Your task to perform on an android device: toggle javascript in the chrome app Image 0: 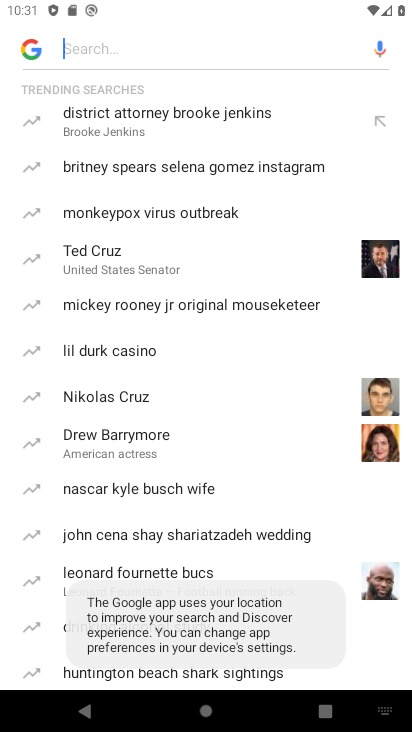
Step 0: press back button
Your task to perform on an android device: toggle javascript in the chrome app Image 1: 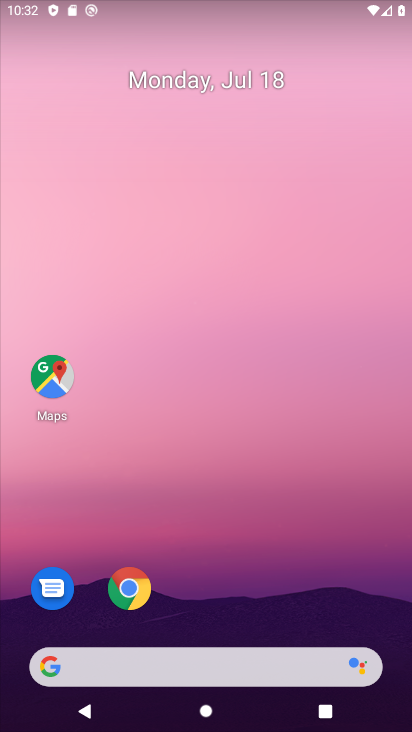
Step 1: click (127, 602)
Your task to perform on an android device: toggle javascript in the chrome app Image 2: 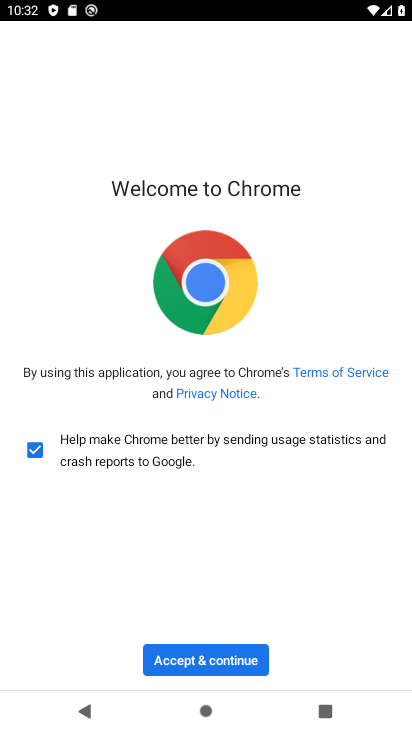
Step 2: click (232, 655)
Your task to perform on an android device: toggle javascript in the chrome app Image 3: 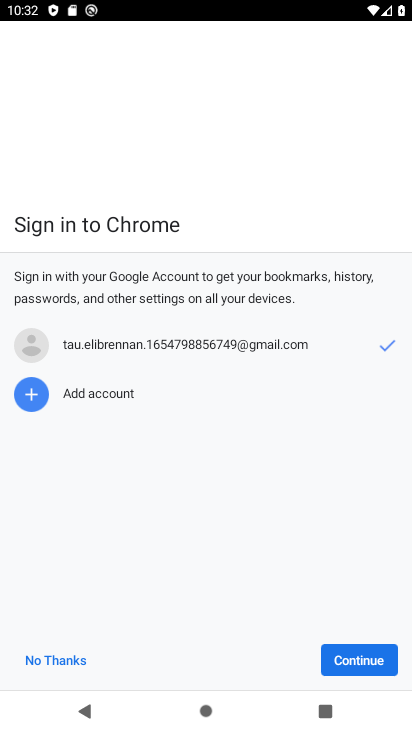
Step 3: click (345, 654)
Your task to perform on an android device: toggle javascript in the chrome app Image 4: 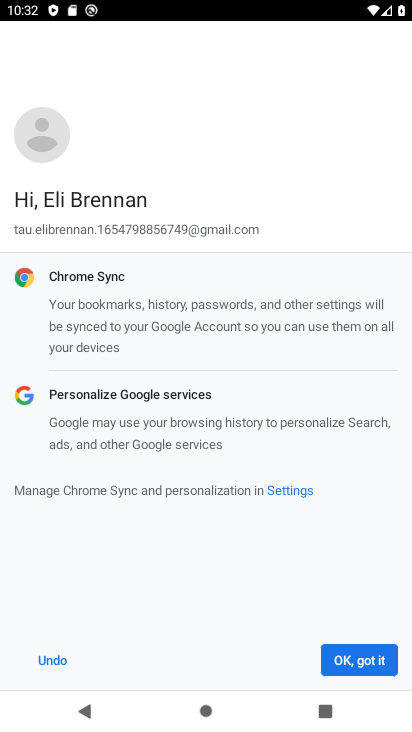
Step 4: click (344, 650)
Your task to perform on an android device: toggle javascript in the chrome app Image 5: 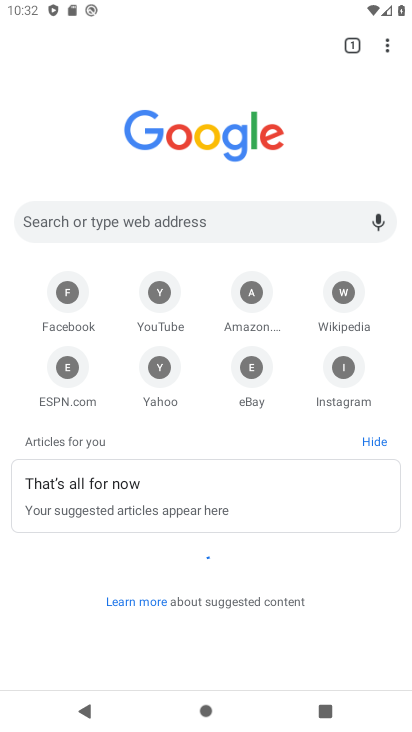
Step 5: click (386, 42)
Your task to perform on an android device: toggle javascript in the chrome app Image 6: 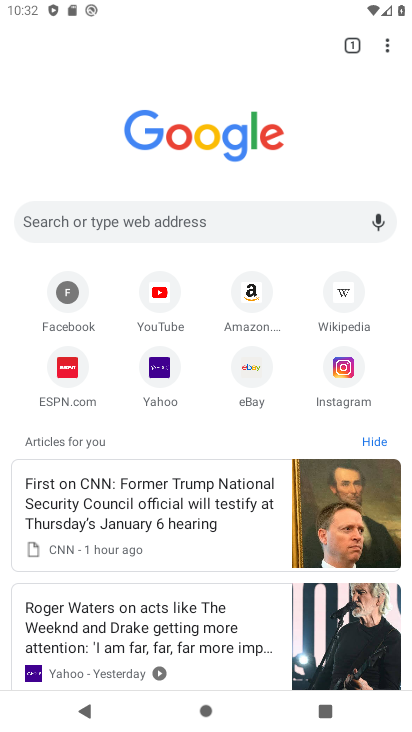
Step 6: drag from (387, 35) to (252, 380)
Your task to perform on an android device: toggle javascript in the chrome app Image 7: 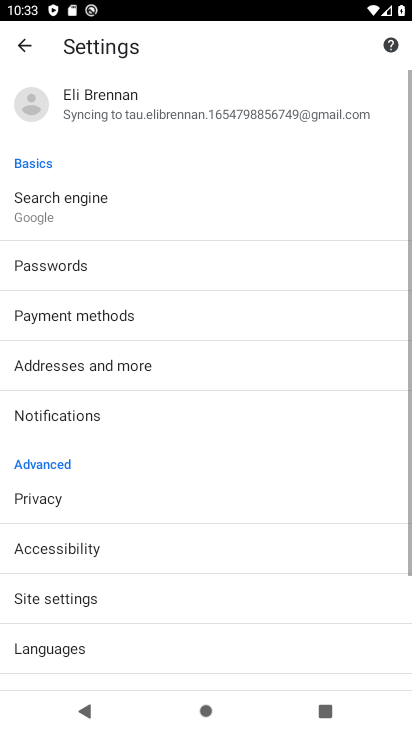
Step 7: drag from (169, 612) to (120, 283)
Your task to perform on an android device: toggle javascript in the chrome app Image 8: 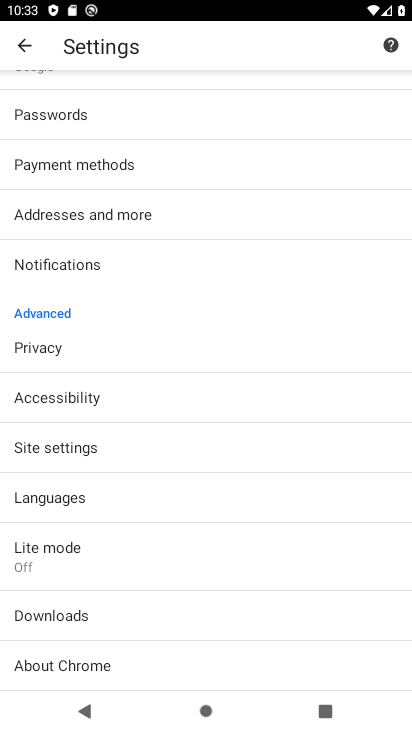
Step 8: click (51, 451)
Your task to perform on an android device: toggle javascript in the chrome app Image 9: 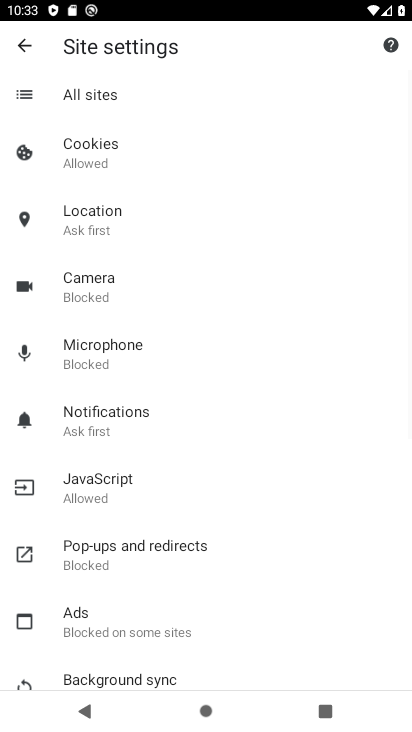
Step 9: click (134, 484)
Your task to perform on an android device: toggle javascript in the chrome app Image 10: 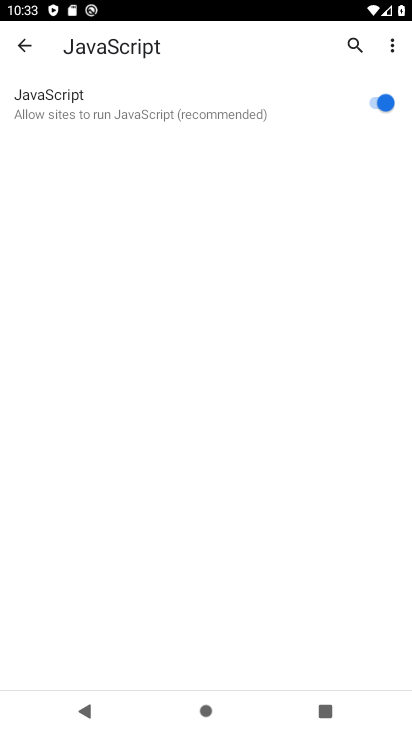
Step 10: click (379, 108)
Your task to perform on an android device: toggle javascript in the chrome app Image 11: 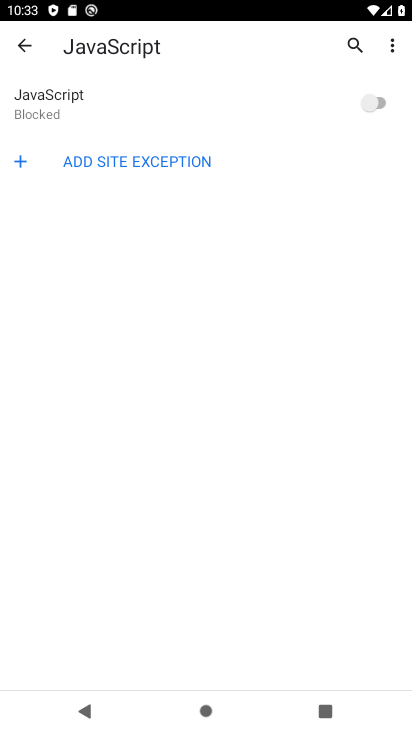
Step 11: task complete